Your task to perform on an android device: Go to Amazon Image 0: 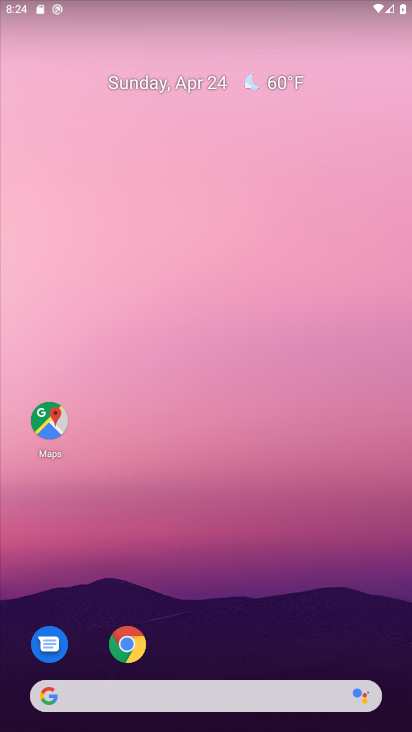
Step 0: drag from (227, 649) to (279, 78)
Your task to perform on an android device: Go to Amazon Image 1: 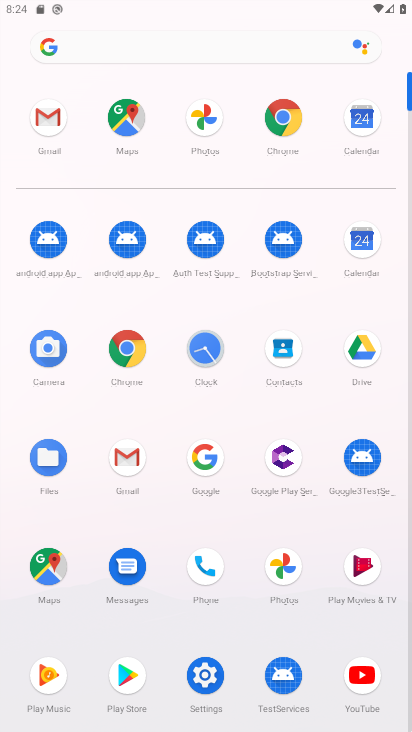
Step 1: click (125, 344)
Your task to perform on an android device: Go to Amazon Image 2: 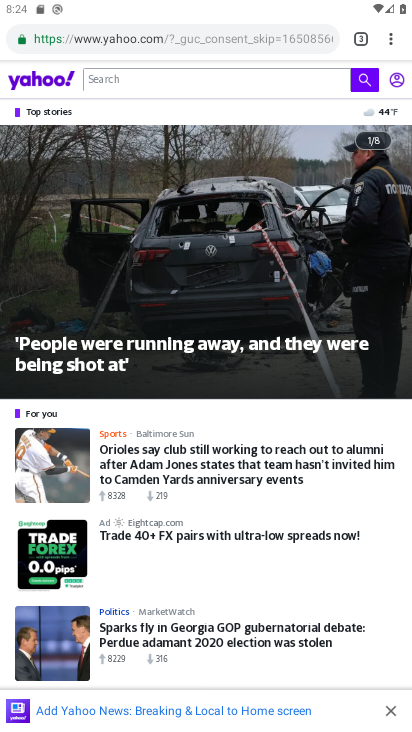
Step 2: click (363, 33)
Your task to perform on an android device: Go to Amazon Image 3: 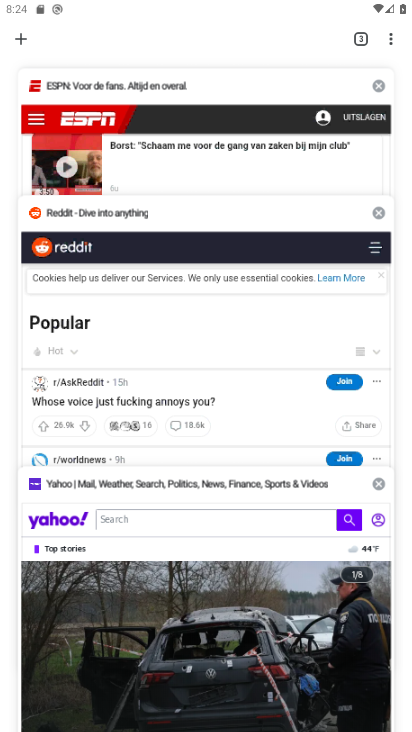
Step 3: click (24, 38)
Your task to perform on an android device: Go to Amazon Image 4: 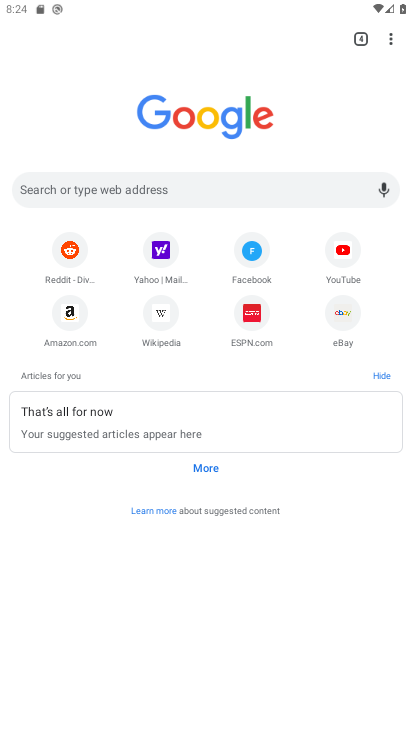
Step 4: click (66, 307)
Your task to perform on an android device: Go to Amazon Image 5: 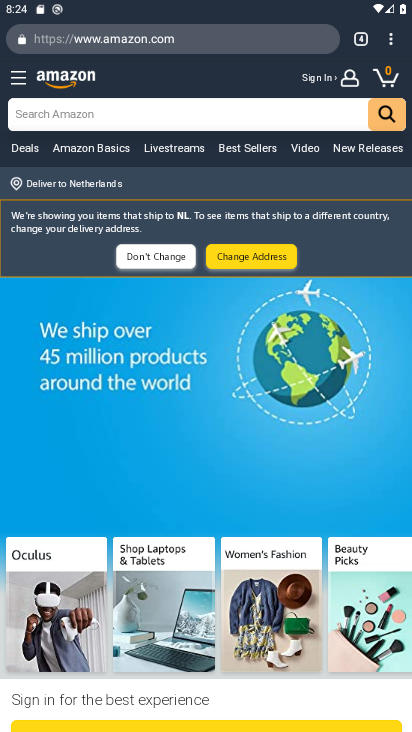
Step 5: task complete